Your task to perform on an android device: Open settings on Google Maps Image 0: 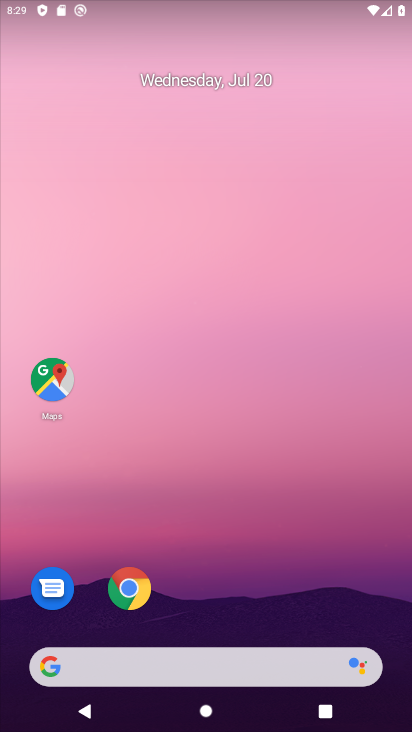
Step 0: click (33, 387)
Your task to perform on an android device: Open settings on Google Maps Image 1: 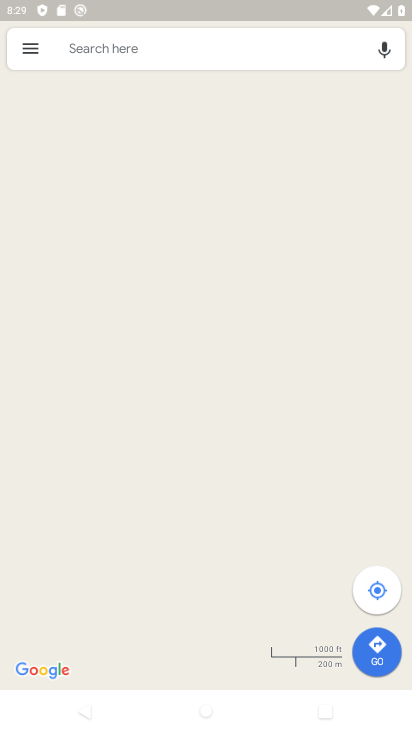
Step 1: click (20, 44)
Your task to perform on an android device: Open settings on Google Maps Image 2: 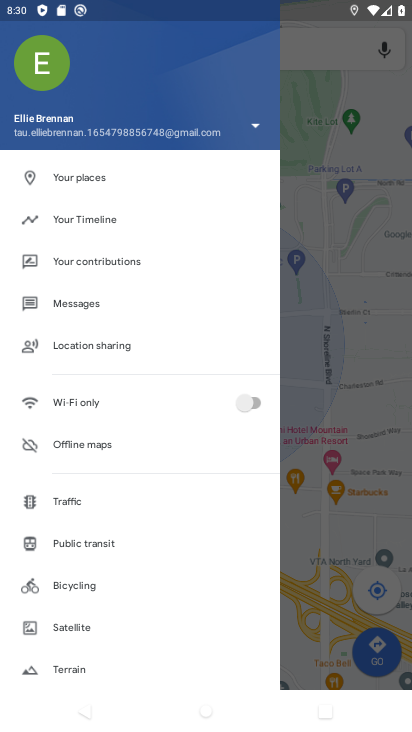
Step 2: drag from (137, 591) to (103, 96)
Your task to perform on an android device: Open settings on Google Maps Image 3: 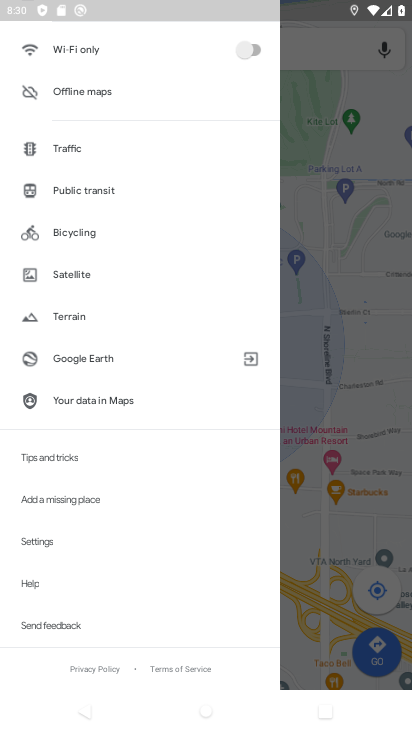
Step 3: click (29, 533)
Your task to perform on an android device: Open settings on Google Maps Image 4: 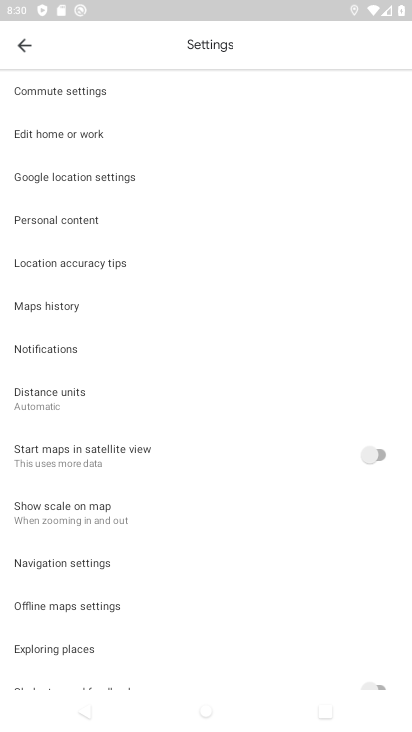
Step 4: task complete